Your task to perform on an android device: Empty the shopping cart on ebay. Image 0: 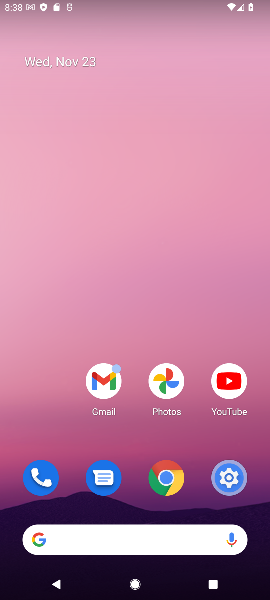
Step 0: click (140, 544)
Your task to perform on an android device: Empty the shopping cart on ebay. Image 1: 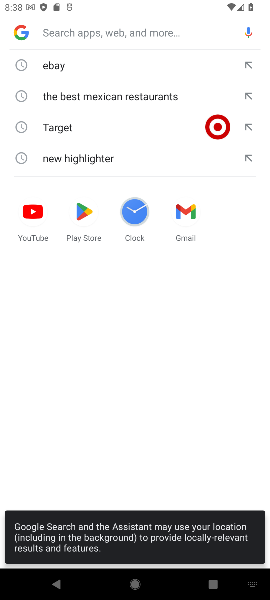
Step 1: click (81, 56)
Your task to perform on an android device: Empty the shopping cart on ebay. Image 2: 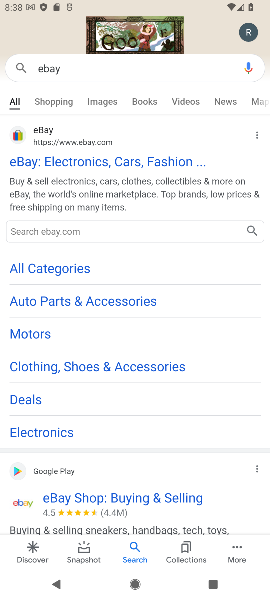
Step 2: click (101, 165)
Your task to perform on an android device: Empty the shopping cart on ebay. Image 3: 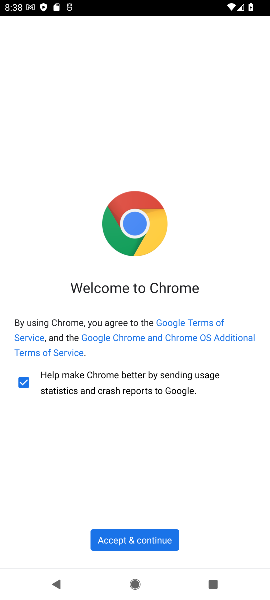
Step 3: click (151, 524)
Your task to perform on an android device: Empty the shopping cart on ebay. Image 4: 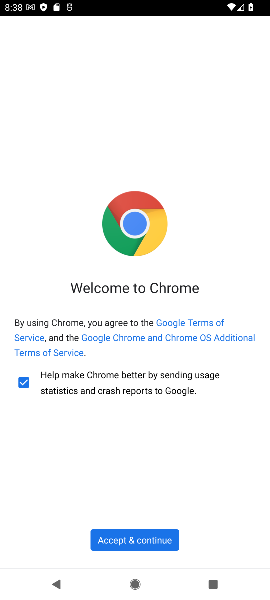
Step 4: click (132, 534)
Your task to perform on an android device: Empty the shopping cart on ebay. Image 5: 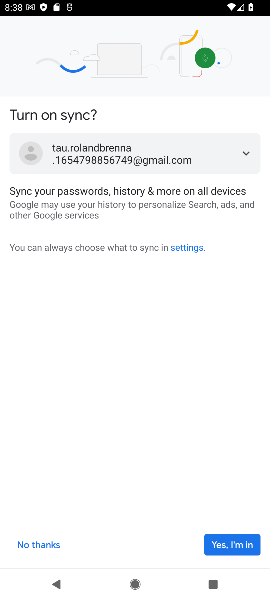
Step 5: click (217, 545)
Your task to perform on an android device: Empty the shopping cart on ebay. Image 6: 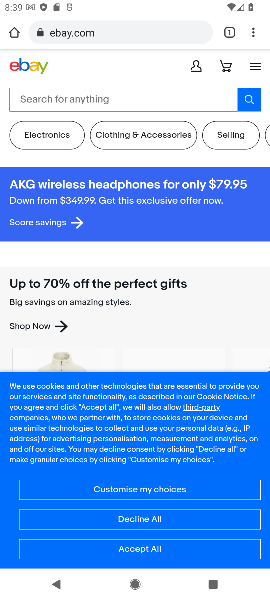
Step 6: click (107, 91)
Your task to perform on an android device: Empty the shopping cart on ebay. Image 7: 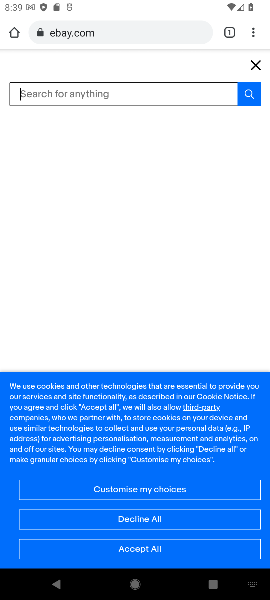
Step 7: click (253, 60)
Your task to perform on an android device: Empty the shopping cart on ebay. Image 8: 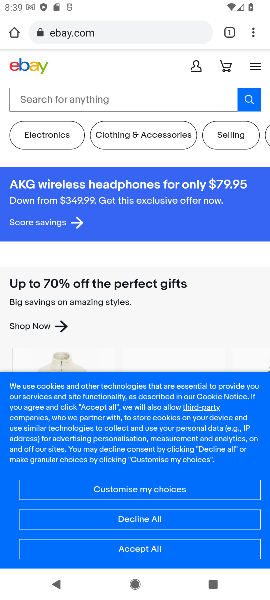
Step 8: click (223, 64)
Your task to perform on an android device: Empty the shopping cart on ebay. Image 9: 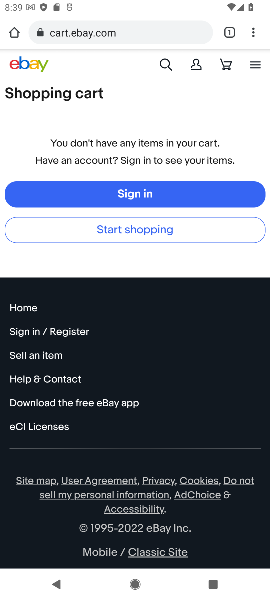
Step 9: task complete